Your task to perform on an android device: check google app version Image 0: 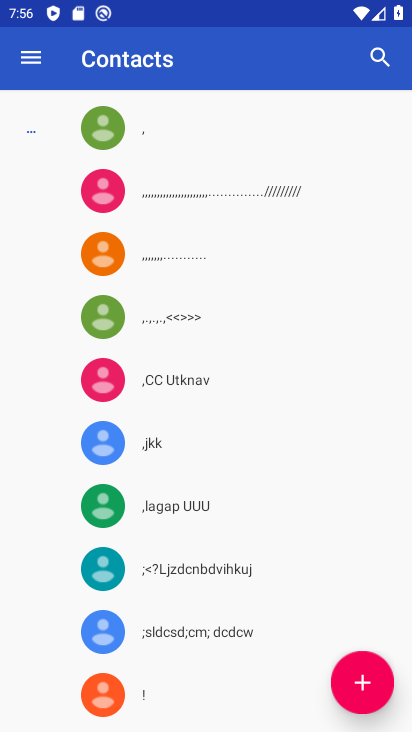
Step 0: press home button
Your task to perform on an android device: check google app version Image 1: 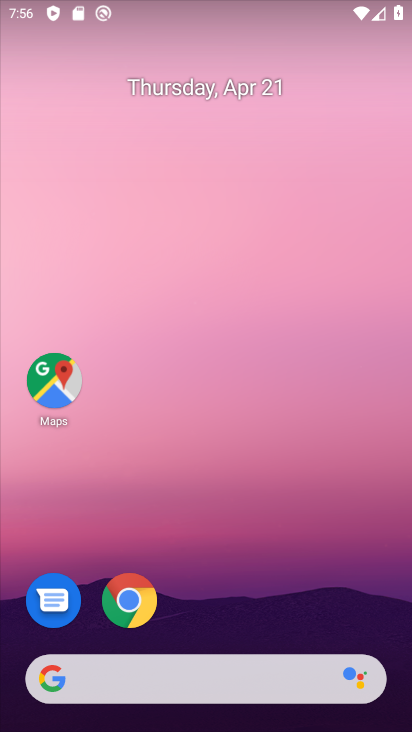
Step 1: drag from (251, 610) to (205, 199)
Your task to perform on an android device: check google app version Image 2: 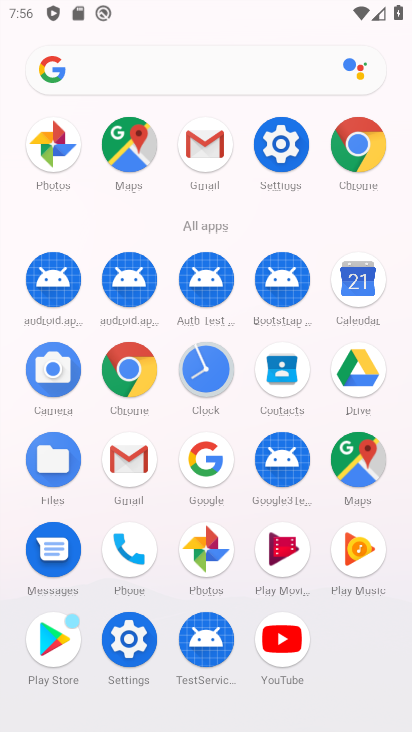
Step 2: click (196, 464)
Your task to perform on an android device: check google app version Image 3: 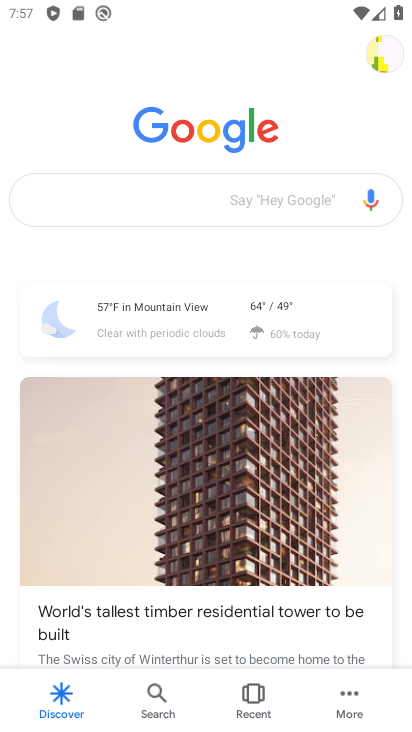
Step 3: click (355, 701)
Your task to perform on an android device: check google app version Image 4: 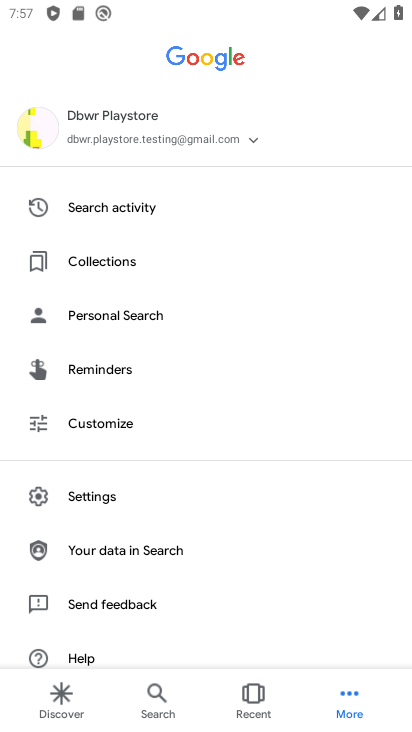
Step 4: drag from (132, 632) to (184, 333)
Your task to perform on an android device: check google app version Image 5: 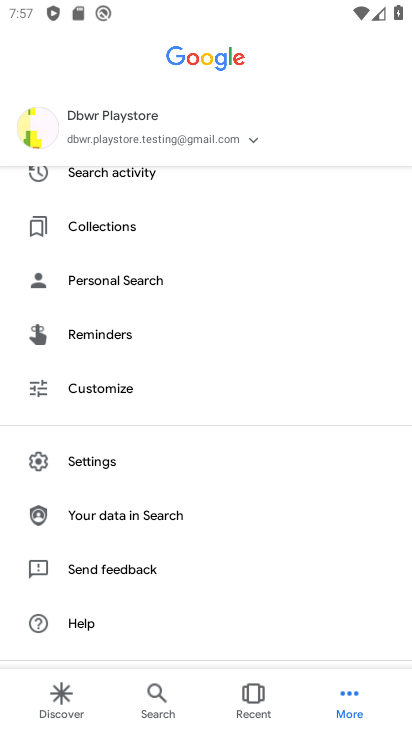
Step 5: drag from (128, 601) to (148, 274)
Your task to perform on an android device: check google app version Image 6: 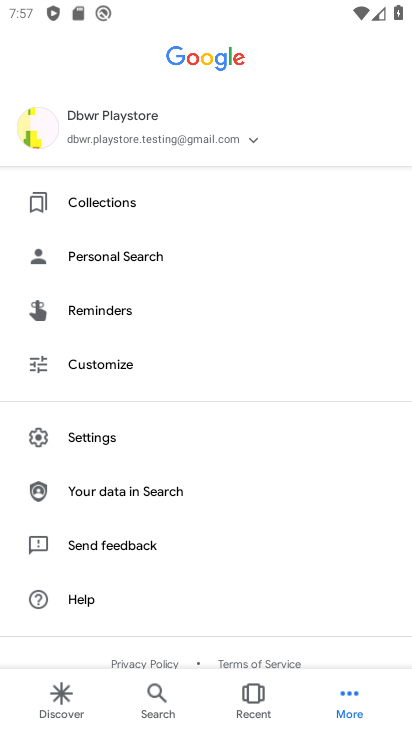
Step 6: click (87, 423)
Your task to perform on an android device: check google app version Image 7: 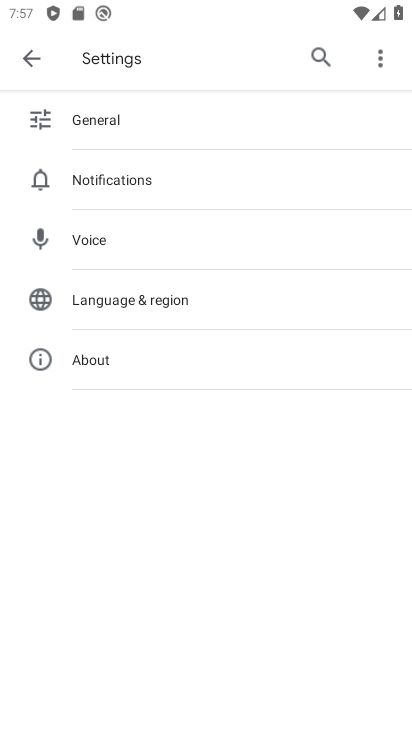
Step 7: click (101, 365)
Your task to perform on an android device: check google app version Image 8: 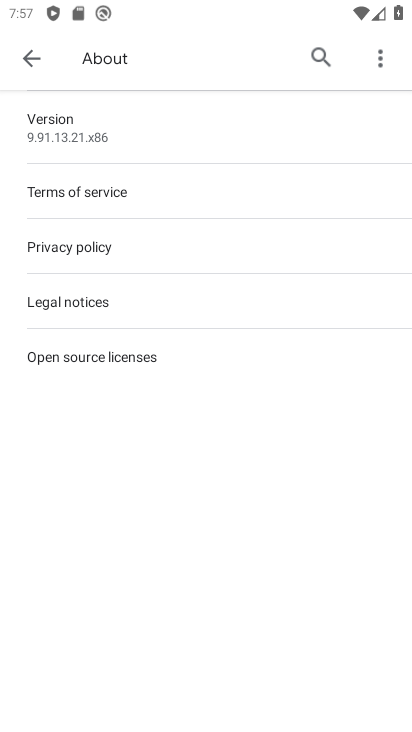
Step 8: task complete